Your task to perform on an android device: check out phone information Image 0: 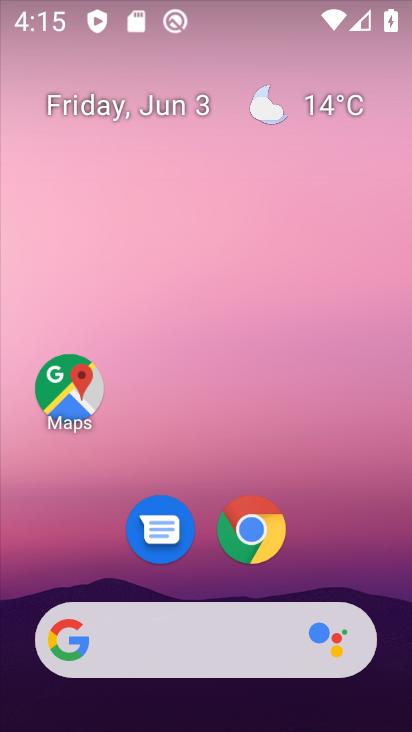
Step 0: drag from (341, 477) to (390, 59)
Your task to perform on an android device: check out phone information Image 1: 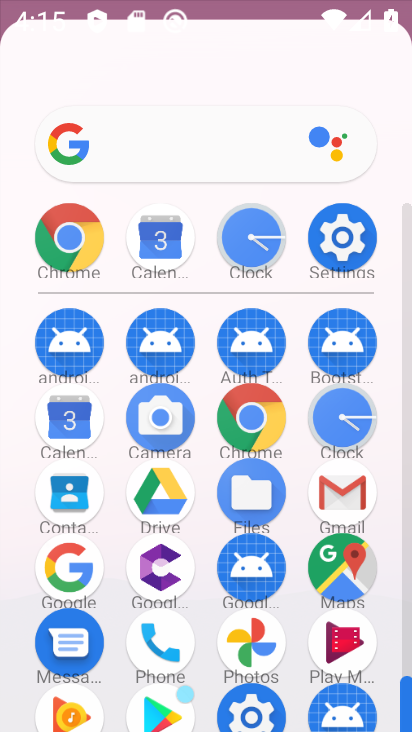
Step 1: click (348, 244)
Your task to perform on an android device: check out phone information Image 2: 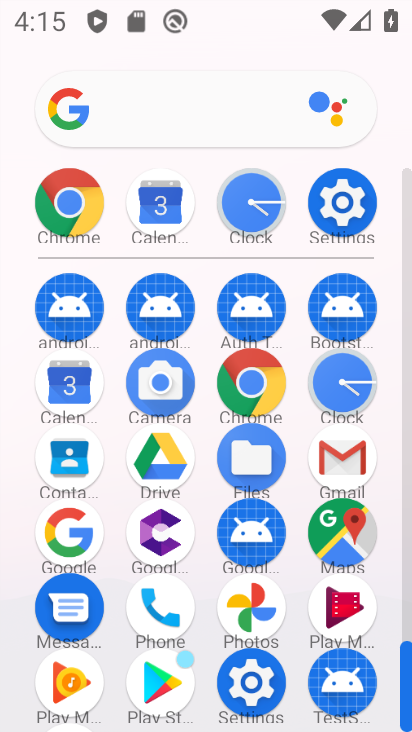
Step 2: click (356, 216)
Your task to perform on an android device: check out phone information Image 3: 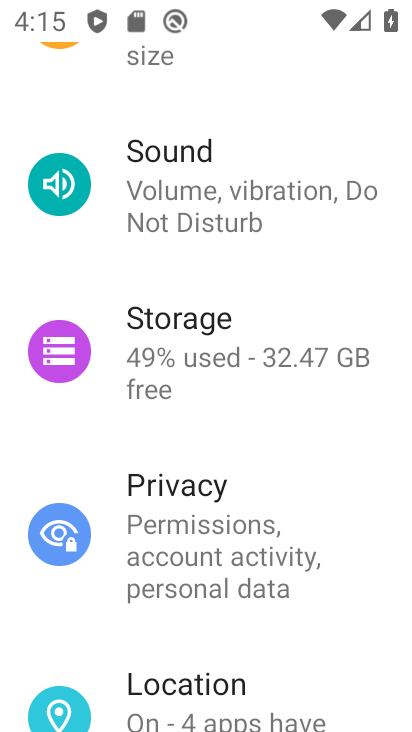
Step 3: drag from (211, 599) to (277, 156)
Your task to perform on an android device: check out phone information Image 4: 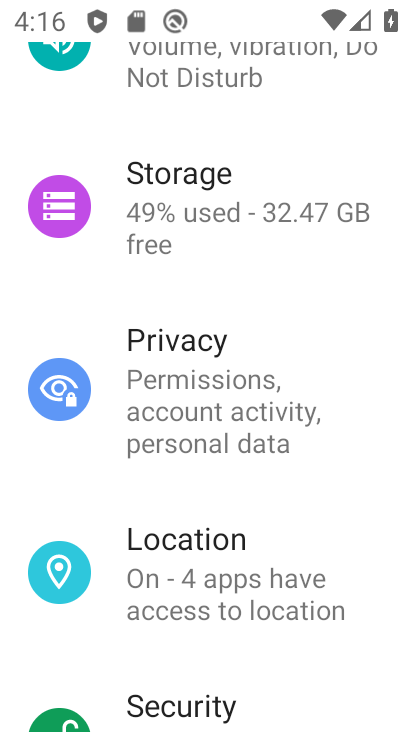
Step 4: drag from (201, 566) to (257, 183)
Your task to perform on an android device: check out phone information Image 5: 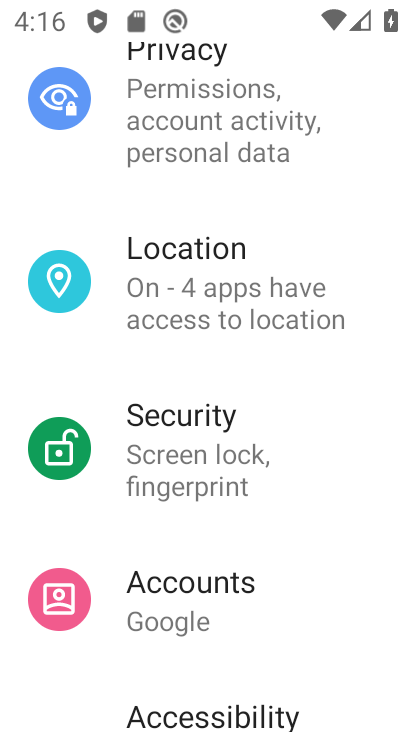
Step 5: drag from (186, 662) to (264, 142)
Your task to perform on an android device: check out phone information Image 6: 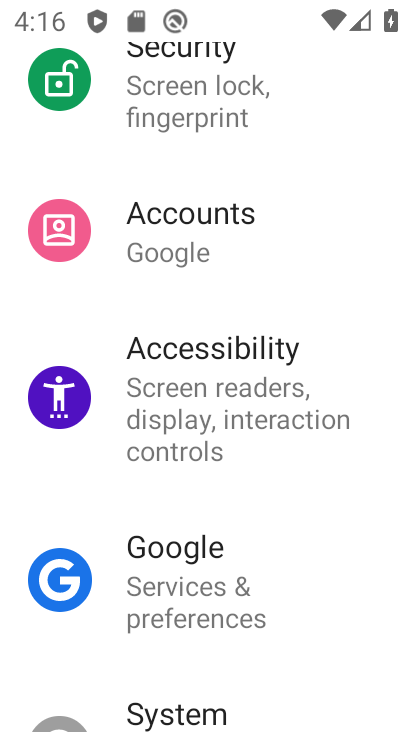
Step 6: drag from (227, 534) to (290, 162)
Your task to perform on an android device: check out phone information Image 7: 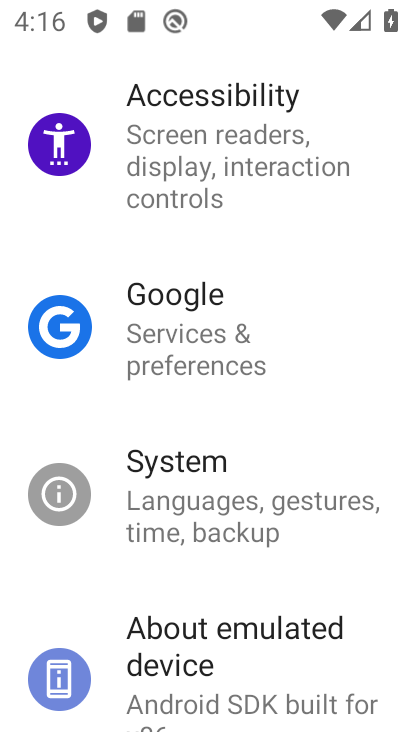
Step 7: drag from (221, 653) to (290, 201)
Your task to perform on an android device: check out phone information Image 8: 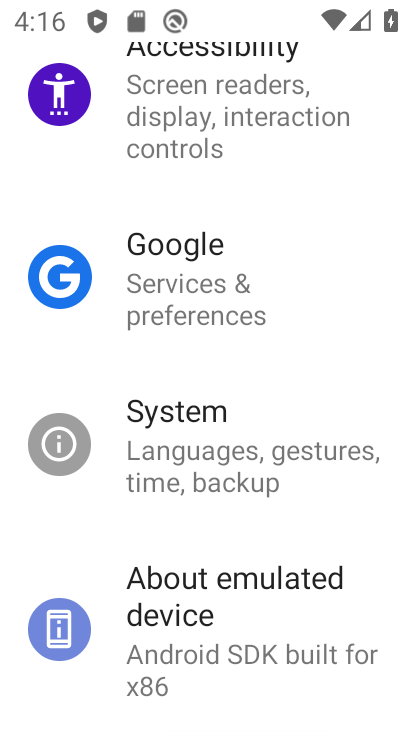
Step 8: drag from (248, 591) to (292, 47)
Your task to perform on an android device: check out phone information Image 9: 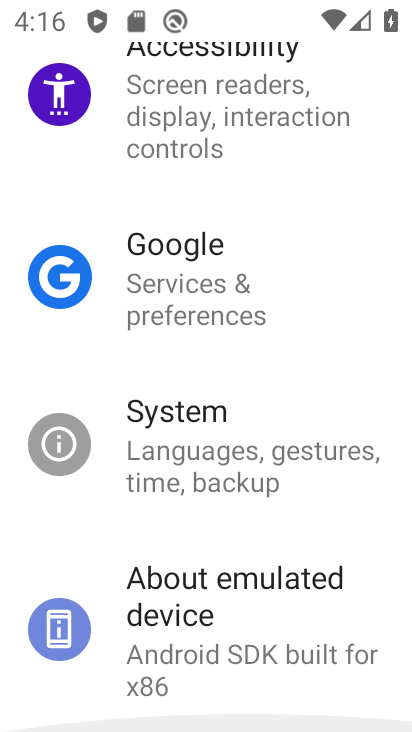
Step 9: drag from (184, 626) to (232, 200)
Your task to perform on an android device: check out phone information Image 10: 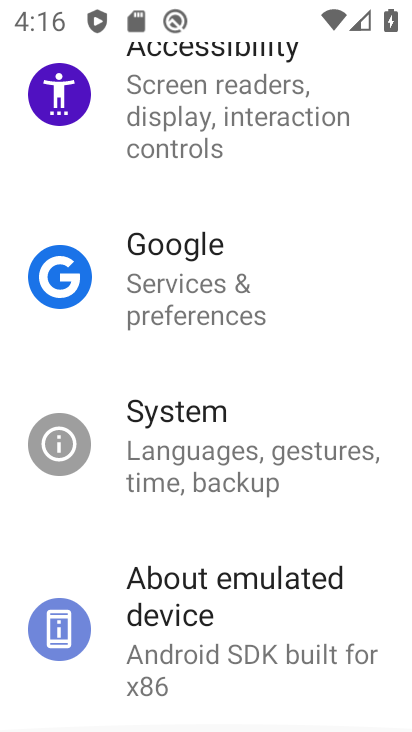
Step 10: click (196, 593)
Your task to perform on an android device: check out phone information Image 11: 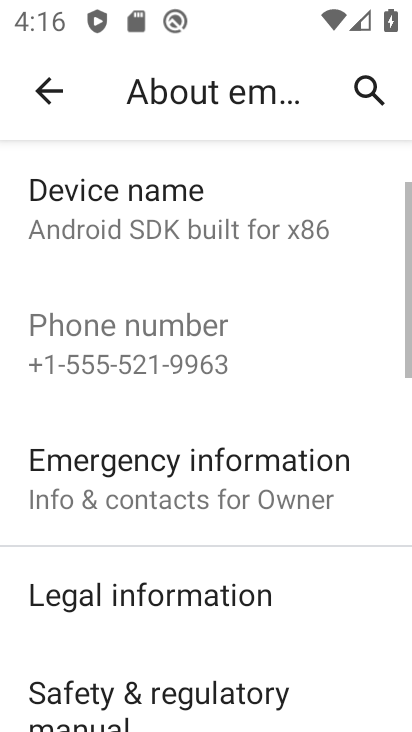
Step 11: task complete